Your task to perform on an android device: manage bookmarks in the chrome app Image 0: 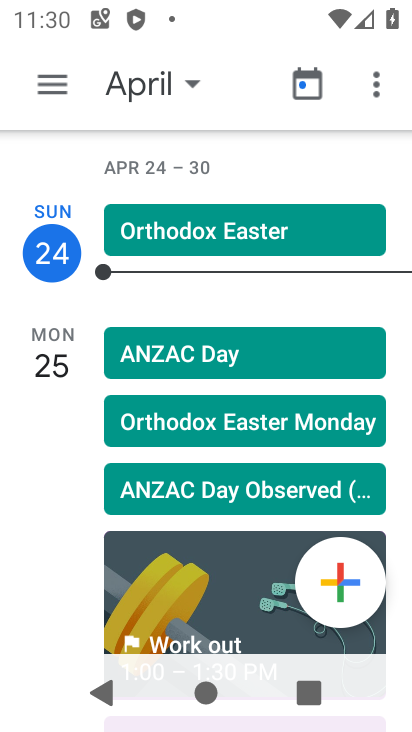
Step 0: drag from (191, 553) to (214, 66)
Your task to perform on an android device: manage bookmarks in the chrome app Image 1: 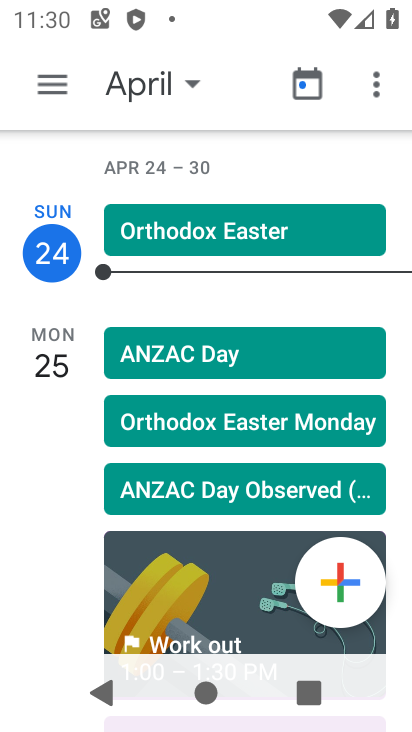
Step 1: press home button
Your task to perform on an android device: manage bookmarks in the chrome app Image 2: 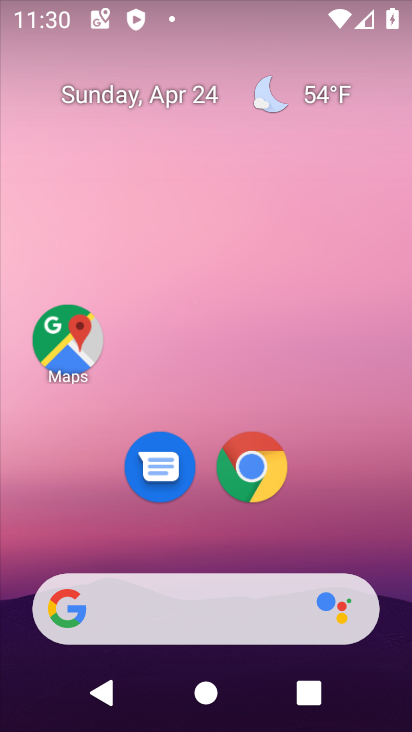
Step 2: click (256, 464)
Your task to perform on an android device: manage bookmarks in the chrome app Image 3: 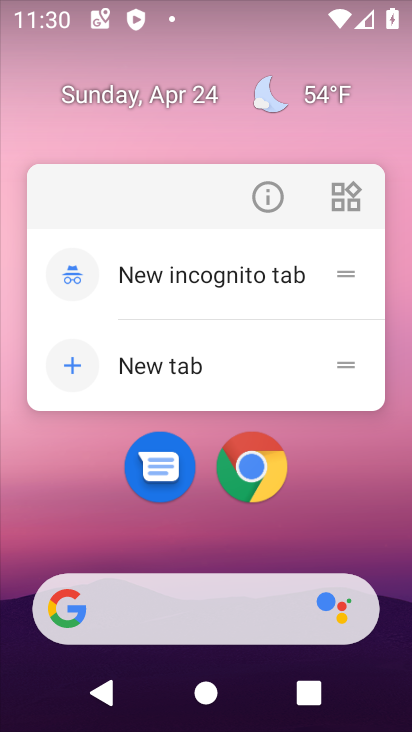
Step 3: click (266, 204)
Your task to perform on an android device: manage bookmarks in the chrome app Image 4: 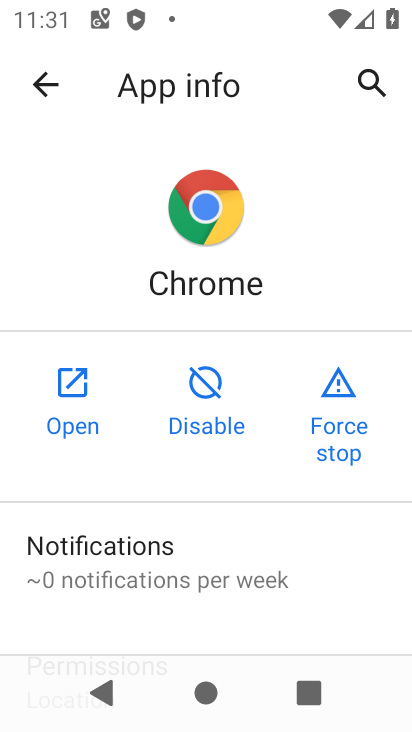
Step 4: click (58, 385)
Your task to perform on an android device: manage bookmarks in the chrome app Image 5: 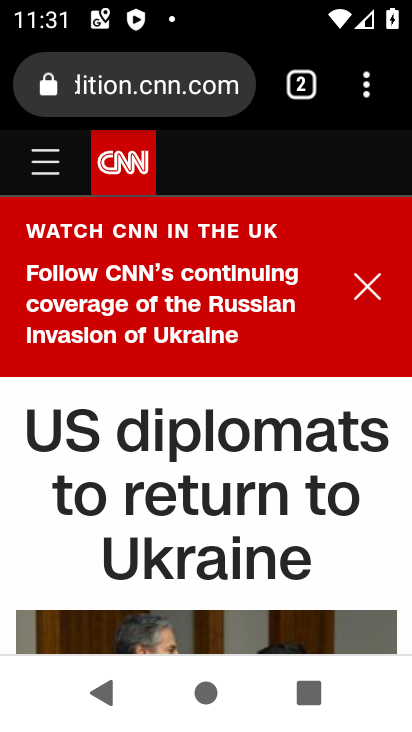
Step 5: drag from (176, 417) to (231, 173)
Your task to perform on an android device: manage bookmarks in the chrome app Image 6: 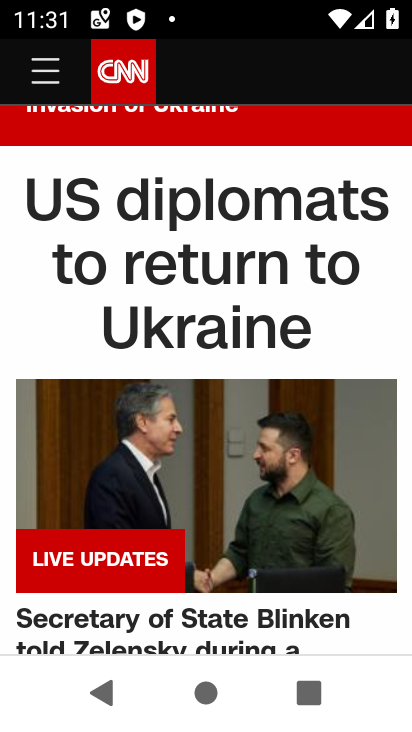
Step 6: drag from (196, 589) to (312, 200)
Your task to perform on an android device: manage bookmarks in the chrome app Image 7: 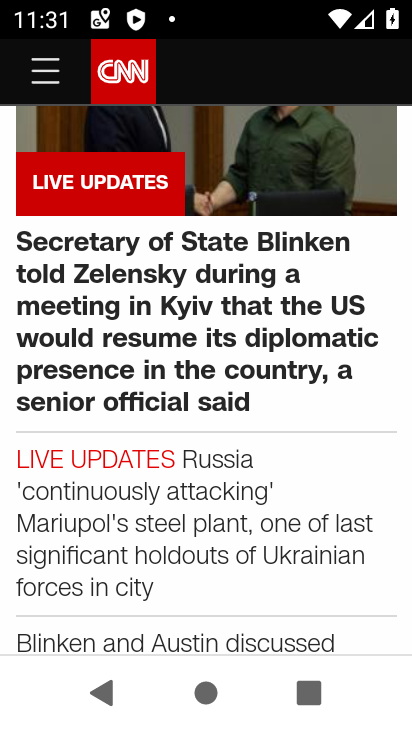
Step 7: drag from (223, 538) to (304, 220)
Your task to perform on an android device: manage bookmarks in the chrome app Image 8: 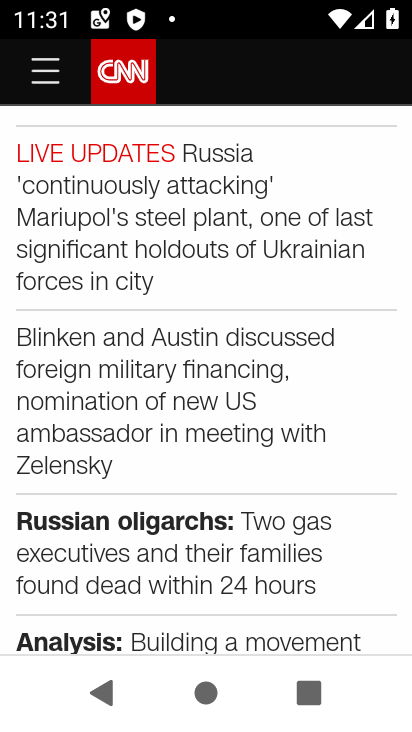
Step 8: drag from (195, 526) to (284, 250)
Your task to perform on an android device: manage bookmarks in the chrome app Image 9: 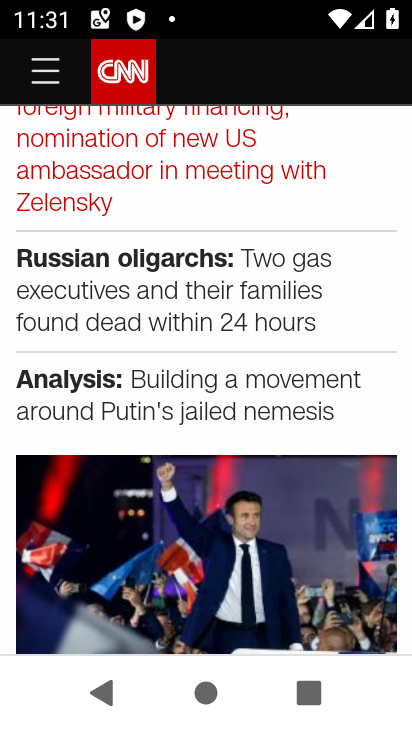
Step 9: drag from (224, 231) to (277, 580)
Your task to perform on an android device: manage bookmarks in the chrome app Image 10: 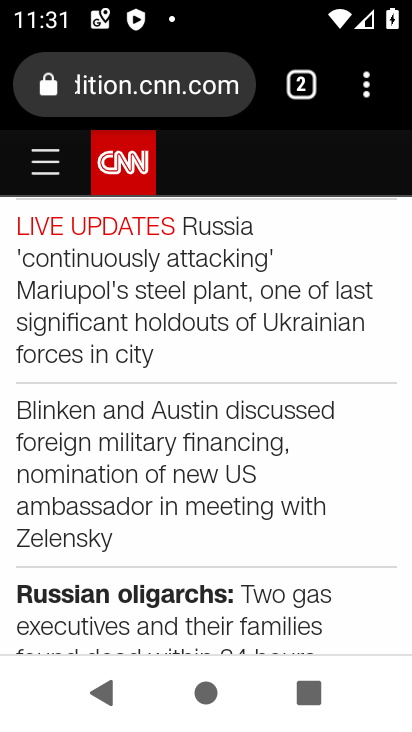
Step 10: drag from (367, 90) to (154, 327)
Your task to perform on an android device: manage bookmarks in the chrome app Image 11: 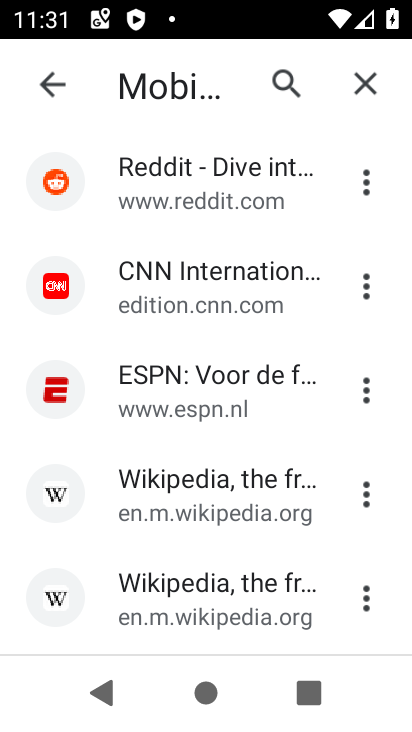
Step 11: drag from (213, 432) to (270, 199)
Your task to perform on an android device: manage bookmarks in the chrome app Image 12: 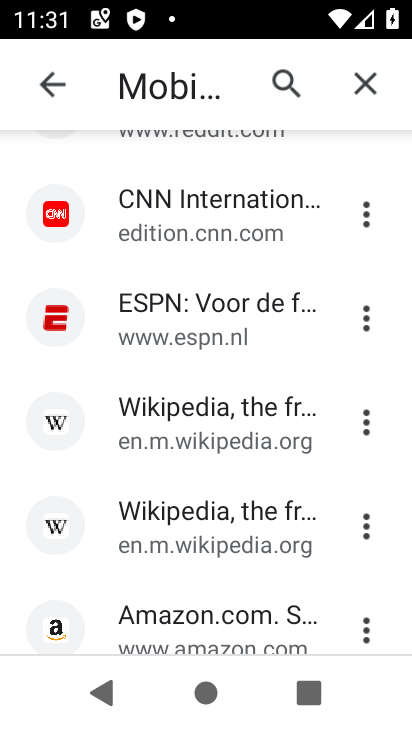
Step 12: click (356, 311)
Your task to perform on an android device: manage bookmarks in the chrome app Image 13: 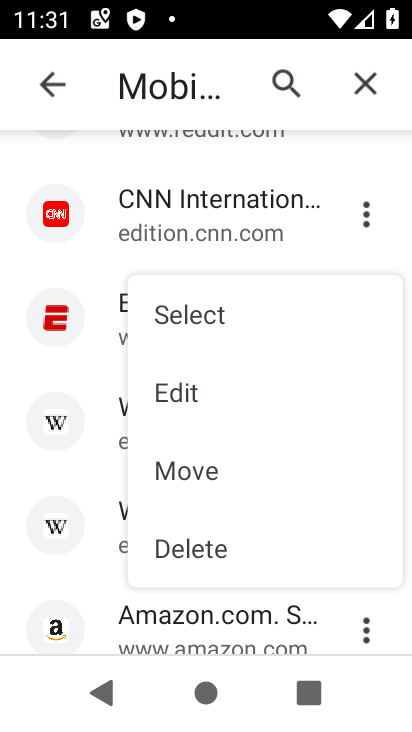
Step 13: click (211, 476)
Your task to perform on an android device: manage bookmarks in the chrome app Image 14: 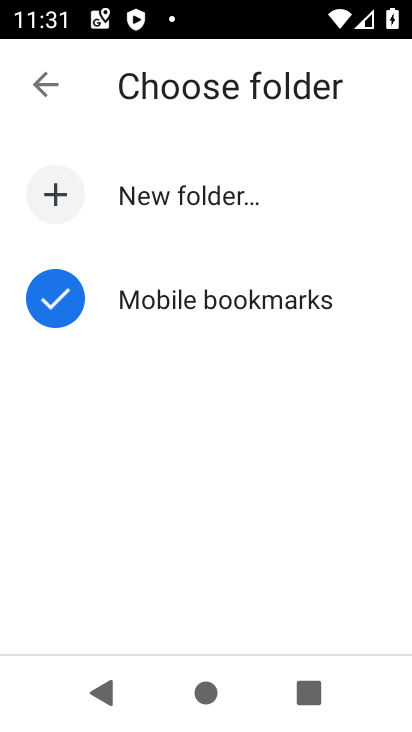
Step 14: click (154, 287)
Your task to perform on an android device: manage bookmarks in the chrome app Image 15: 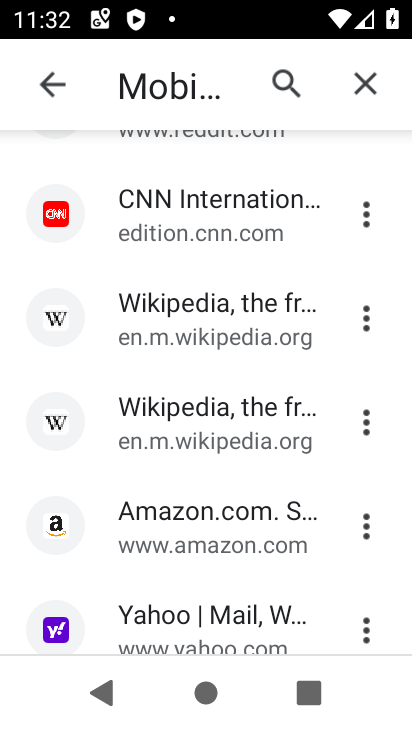
Step 15: task complete